Your task to perform on an android device: Open settings on Google Maps Image 0: 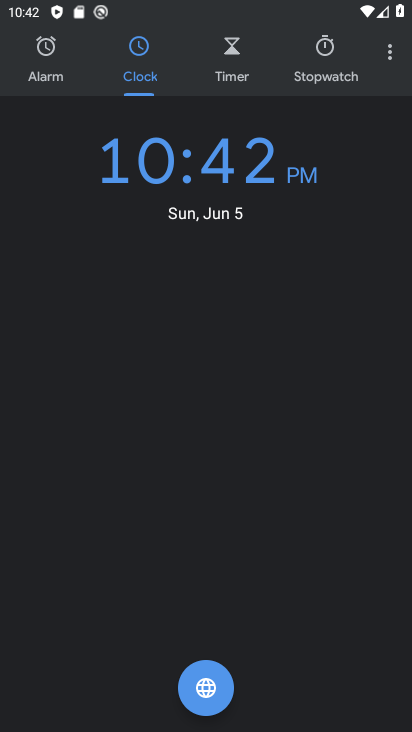
Step 0: press back button
Your task to perform on an android device: Open settings on Google Maps Image 1: 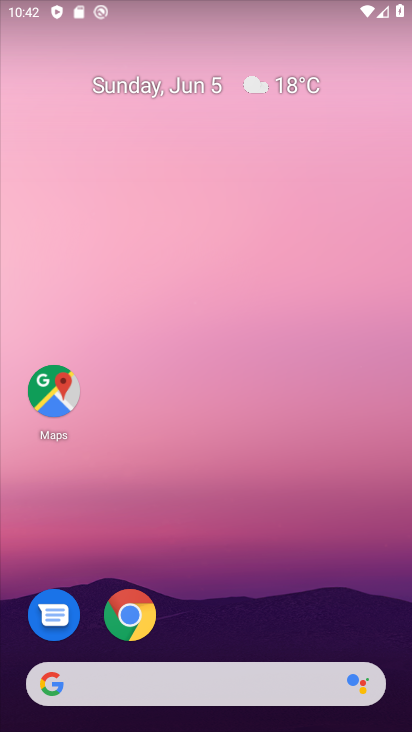
Step 1: drag from (248, 606) to (274, 561)
Your task to perform on an android device: Open settings on Google Maps Image 2: 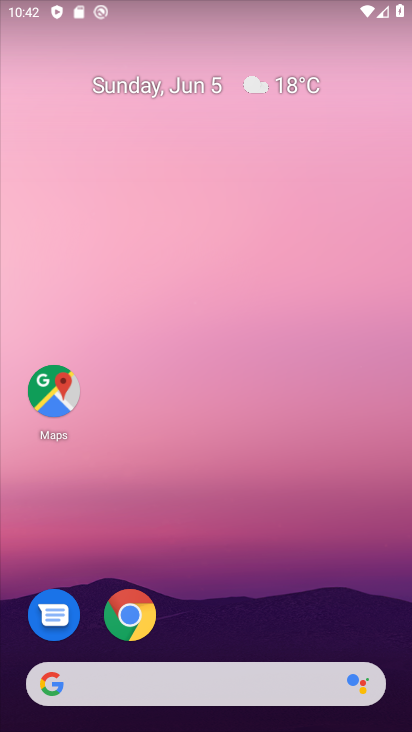
Step 2: click (51, 393)
Your task to perform on an android device: Open settings on Google Maps Image 3: 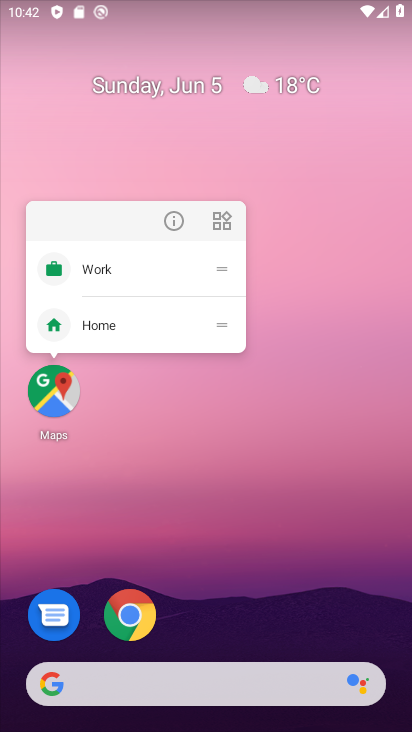
Step 3: click (51, 393)
Your task to perform on an android device: Open settings on Google Maps Image 4: 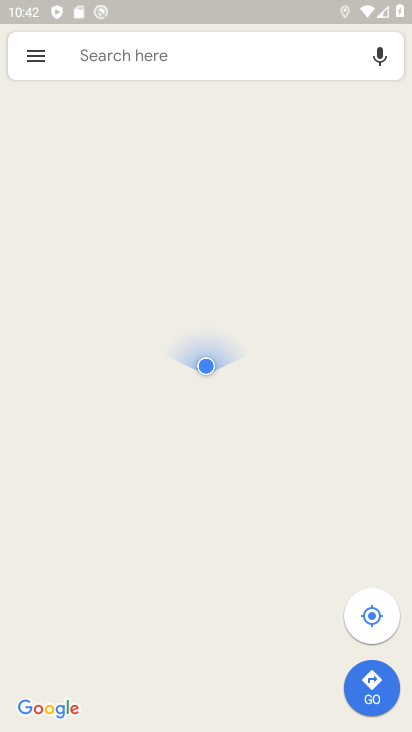
Step 4: click (35, 56)
Your task to perform on an android device: Open settings on Google Maps Image 5: 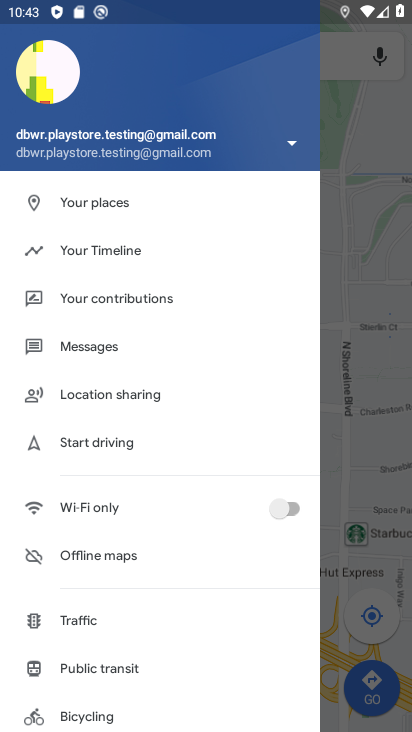
Step 5: drag from (110, 525) to (162, 434)
Your task to perform on an android device: Open settings on Google Maps Image 6: 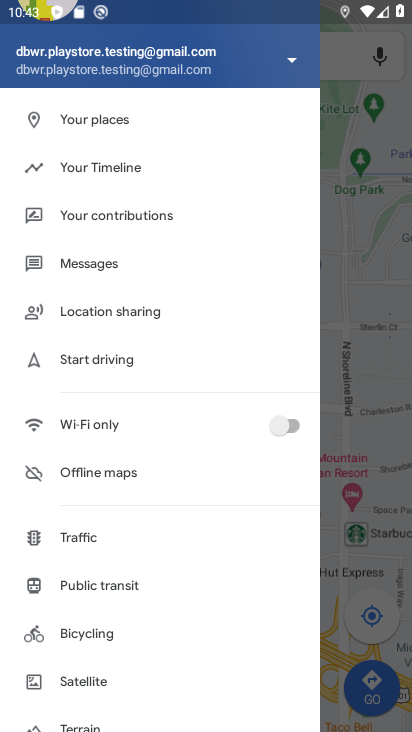
Step 6: drag from (92, 560) to (170, 451)
Your task to perform on an android device: Open settings on Google Maps Image 7: 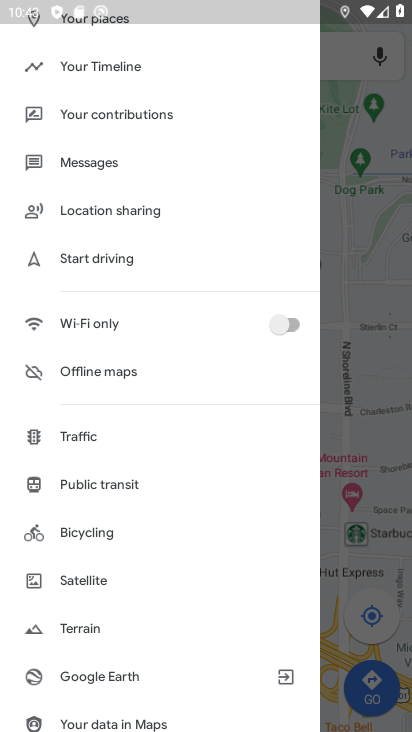
Step 7: drag from (92, 554) to (149, 470)
Your task to perform on an android device: Open settings on Google Maps Image 8: 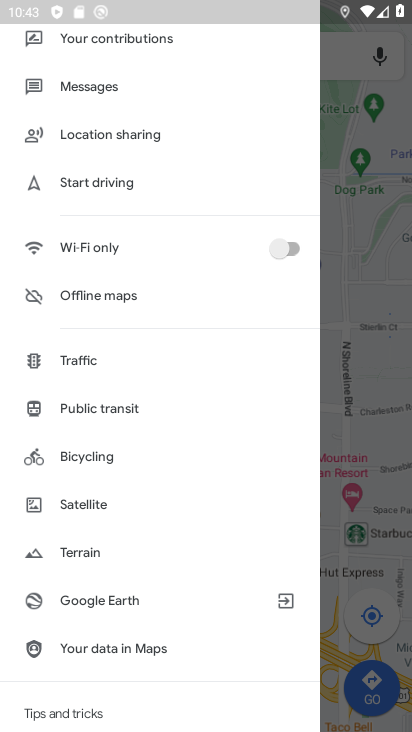
Step 8: drag from (87, 530) to (173, 434)
Your task to perform on an android device: Open settings on Google Maps Image 9: 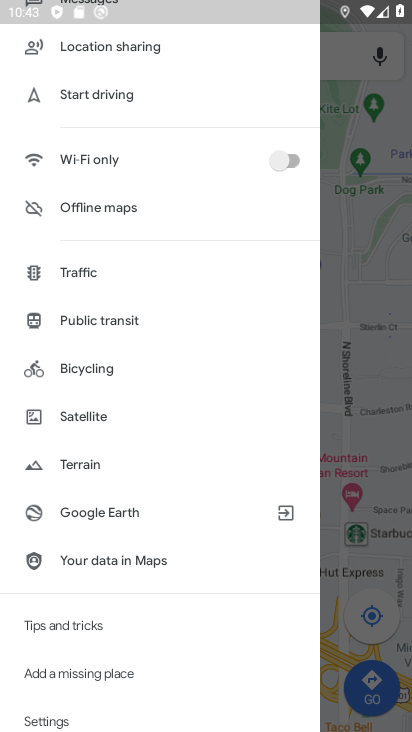
Step 9: drag from (106, 532) to (186, 424)
Your task to perform on an android device: Open settings on Google Maps Image 10: 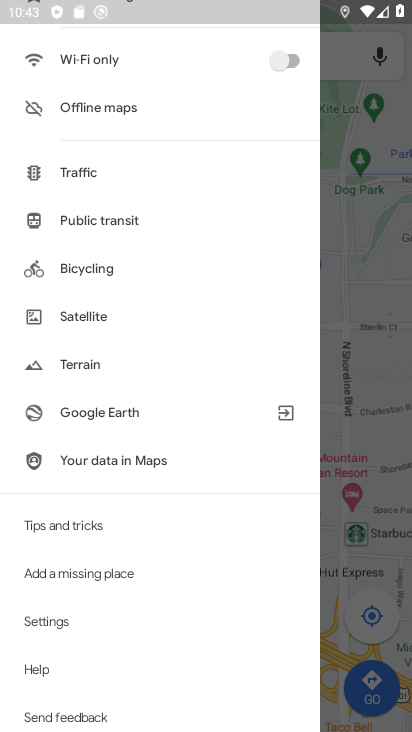
Step 10: click (67, 623)
Your task to perform on an android device: Open settings on Google Maps Image 11: 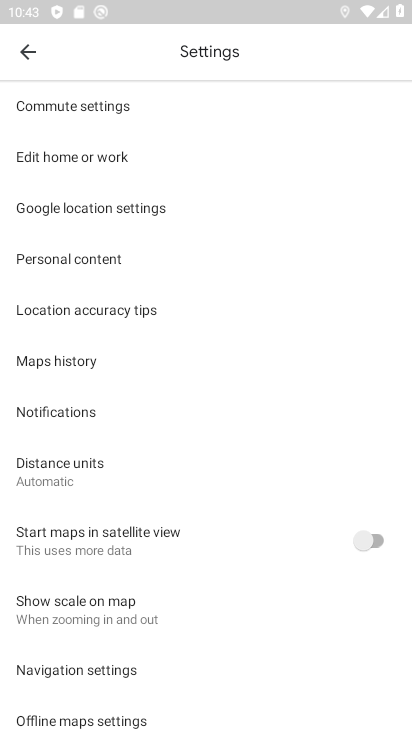
Step 11: task complete